Your task to perform on an android device: Open Google Chrome and click the shortcut for Amazon.com Image 0: 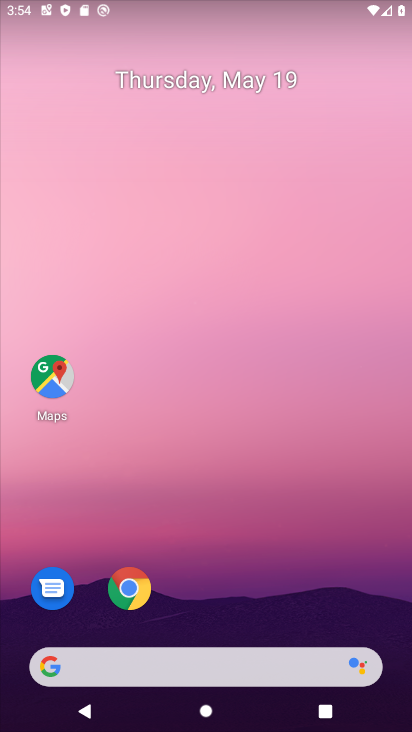
Step 0: click (127, 582)
Your task to perform on an android device: Open Google Chrome and click the shortcut for Amazon.com Image 1: 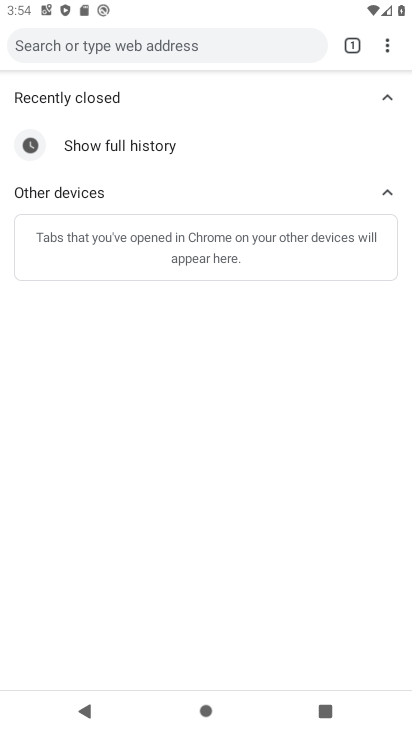
Step 1: click (352, 42)
Your task to perform on an android device: Open Google Chrome and click the shortcut for Amazon.com Image 2: 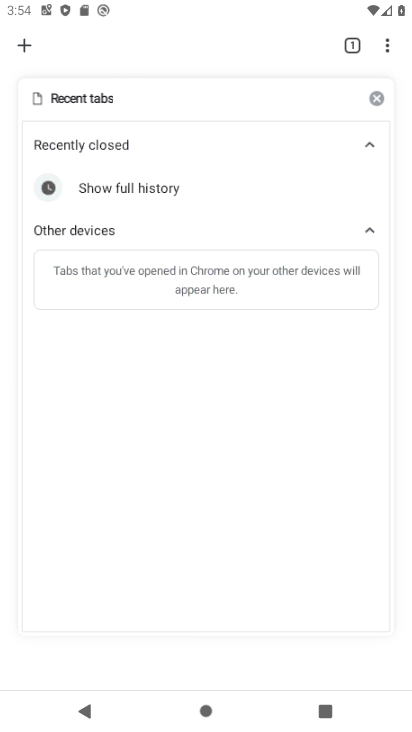
Step 2: click (22, 54)
Your task to perform on an android device: Open Google Chrome and click the shortcut for Amazon.com Image 3: 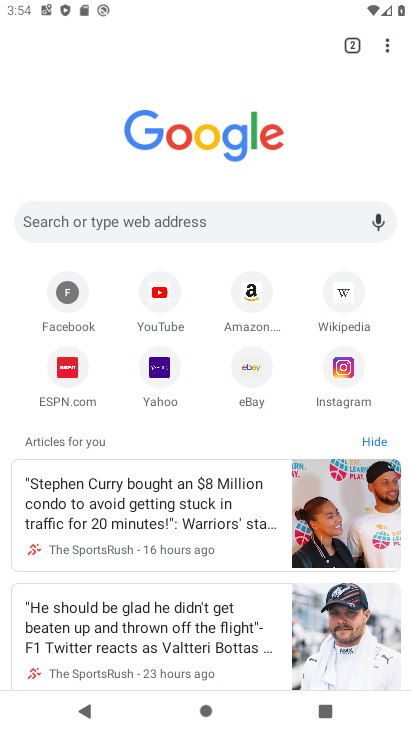
Step 3: click (255, 288)
Your task to perform on an android device: Open Google Chrome and click the shortcut for Amazon.com Image 4: 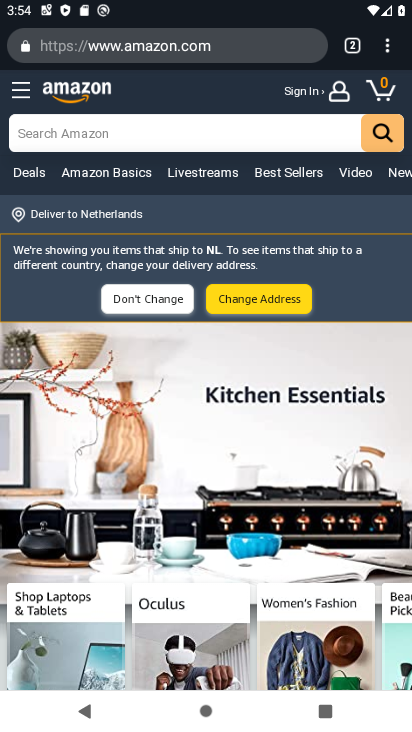
Step 4: task complete